Your task to perform on an android device: Look up the best rated pressure washer on Home Depot. Image 0: 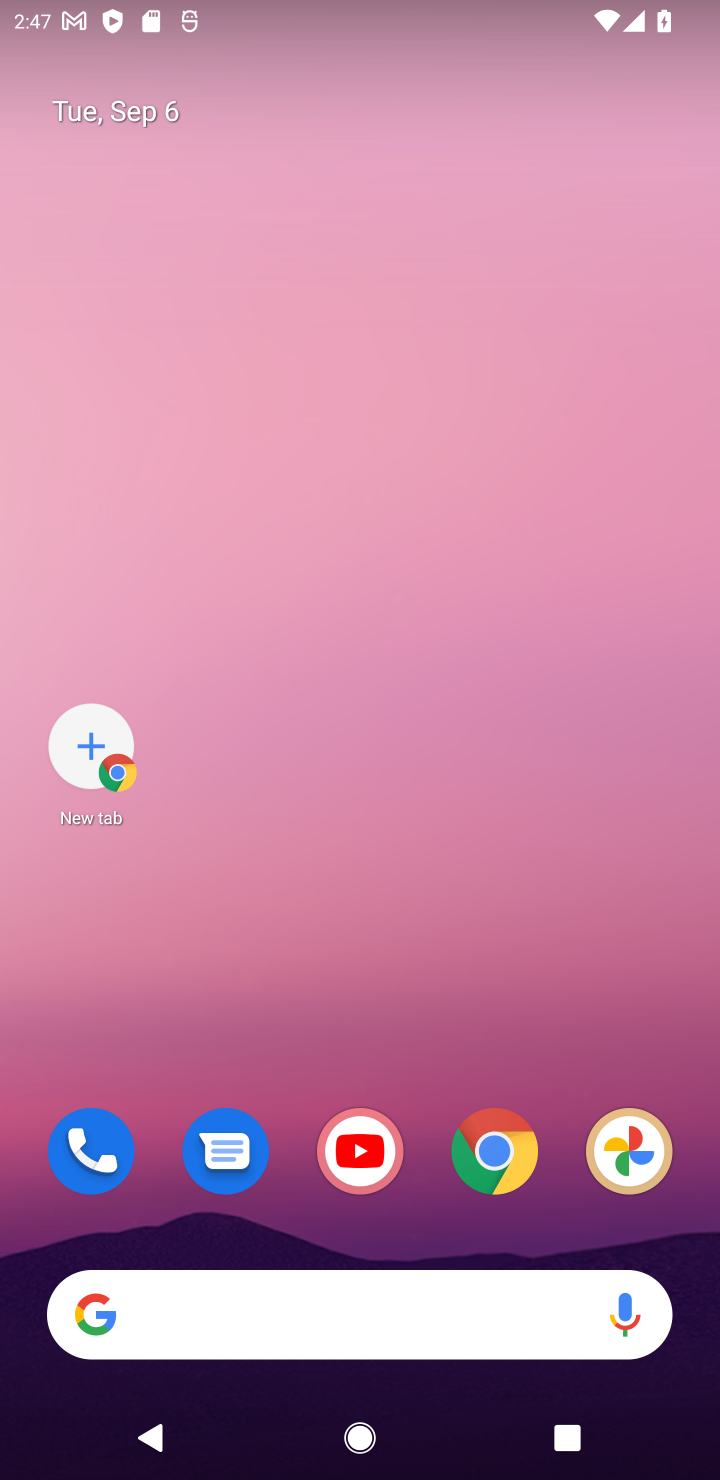
Step 0: click (499, 1167)
Your task to perform on an android device: Look up the best rated pressure washer on Home Depot. Image 1: 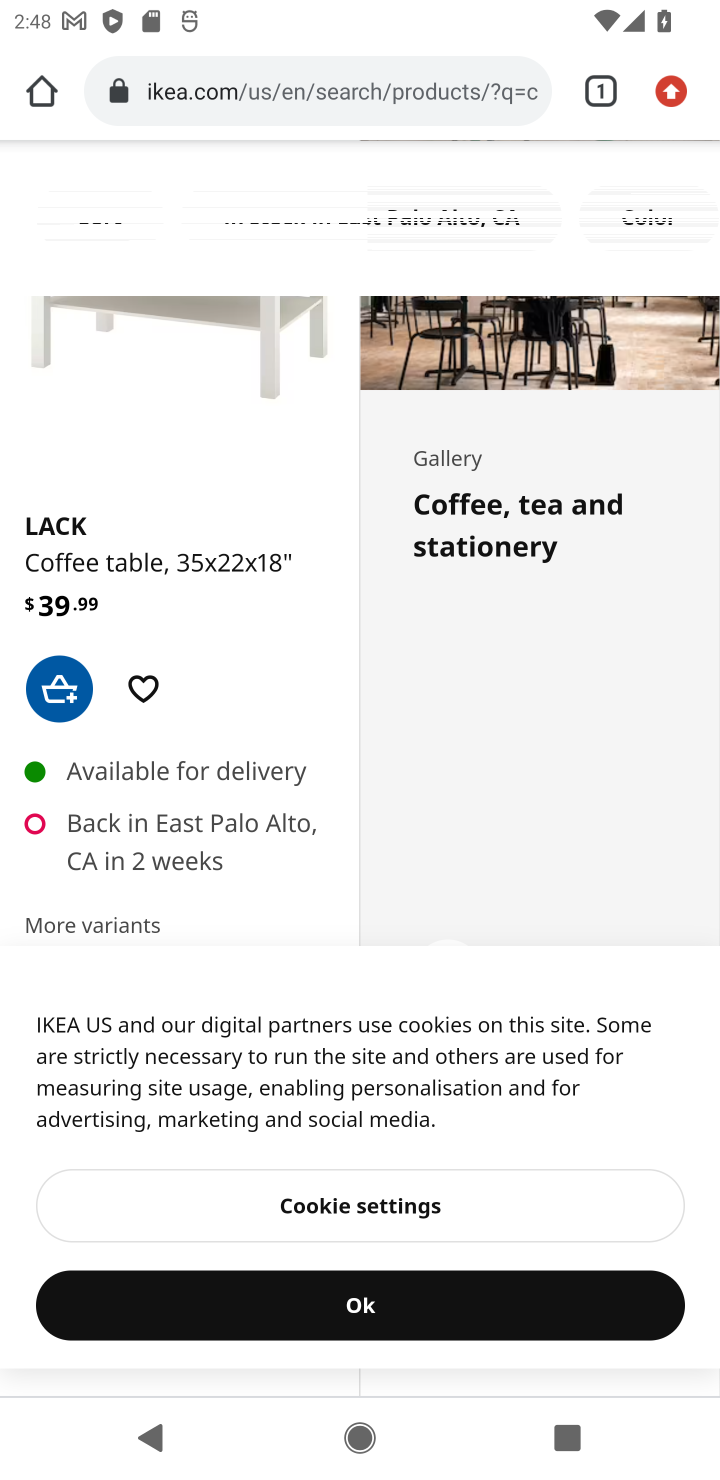
Step 1: click (205, 82)
Your task to perform on an android device: Look up the best rated pressure washer on Home Depot. Image 2: 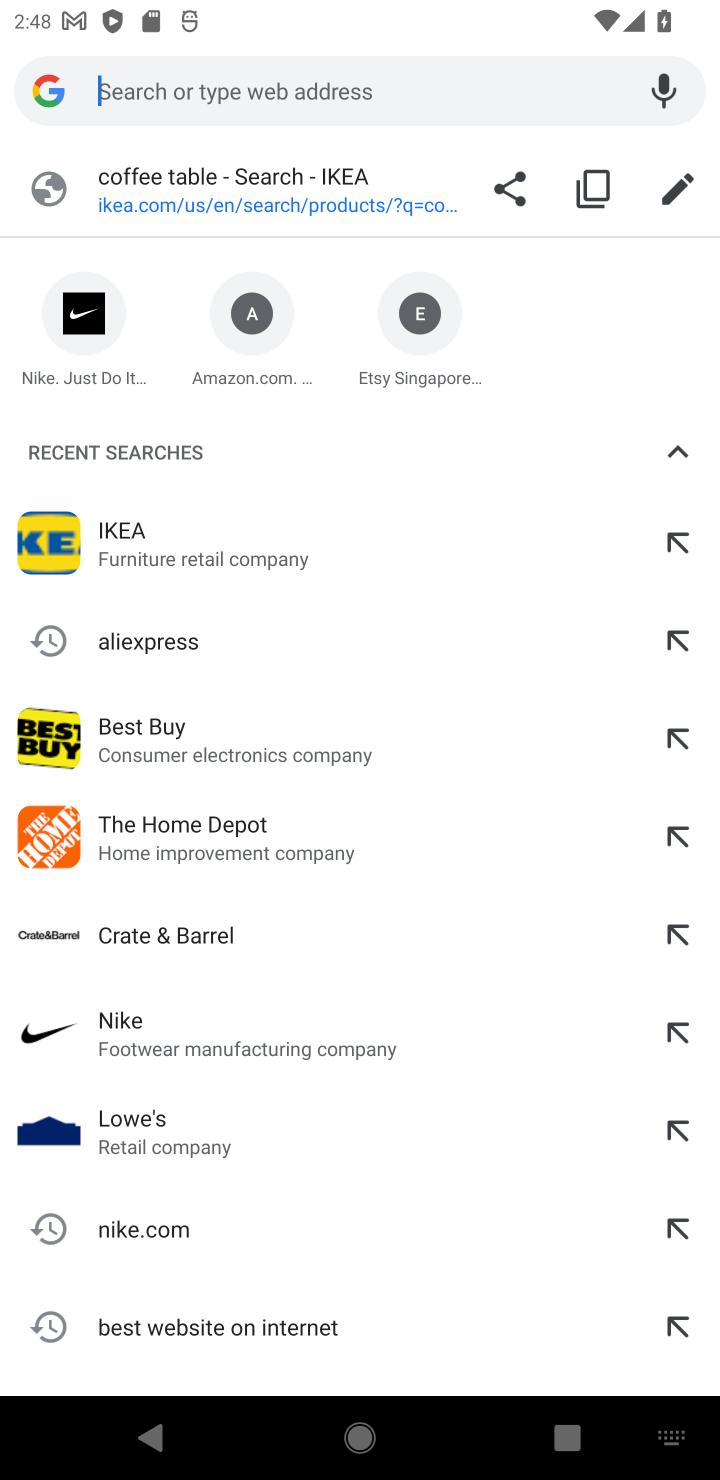
Step 2: type "home depot"
Your task to perform on an android device: Look up the best rated pressure washer on Home Depot. Image 3: 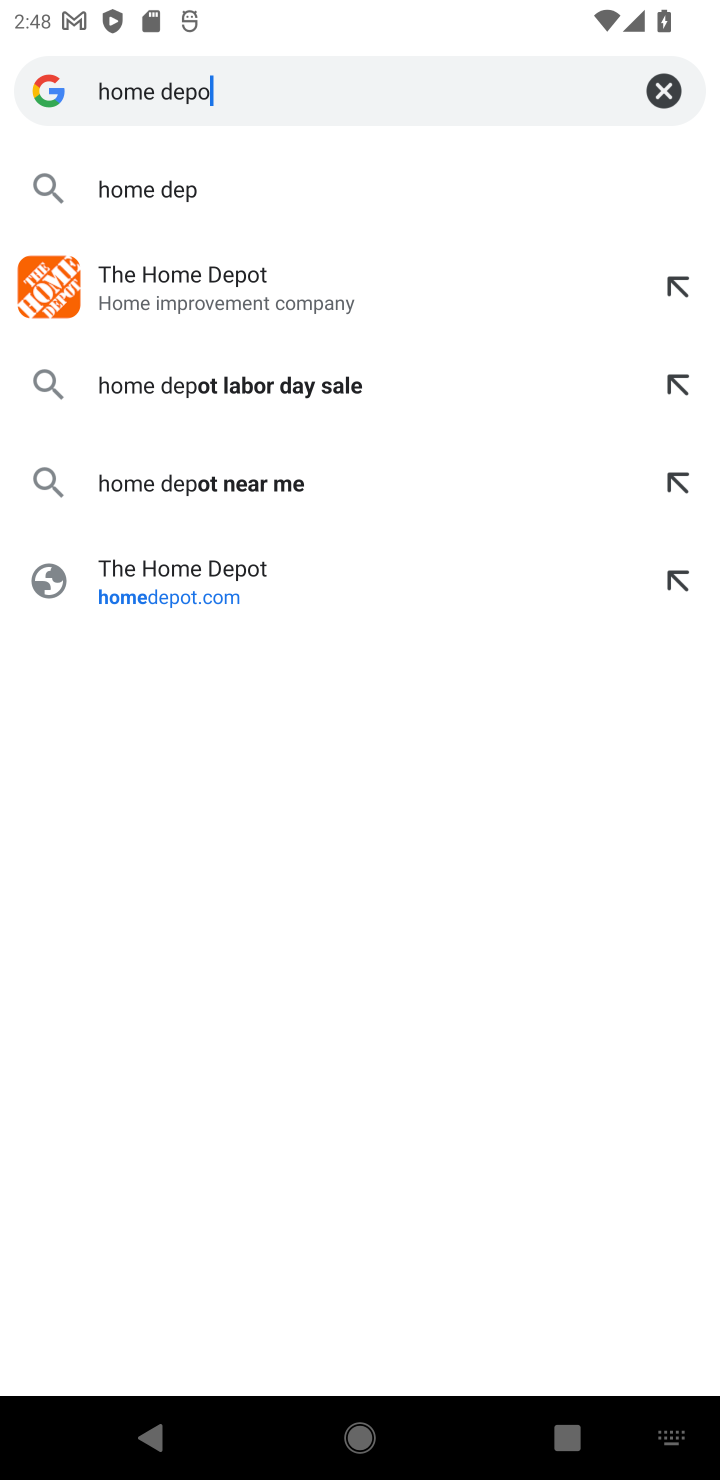
Step 3: type ""
Your task to perform on an android device: Look up the best rated pressure washer on Home Depot. Image 4: 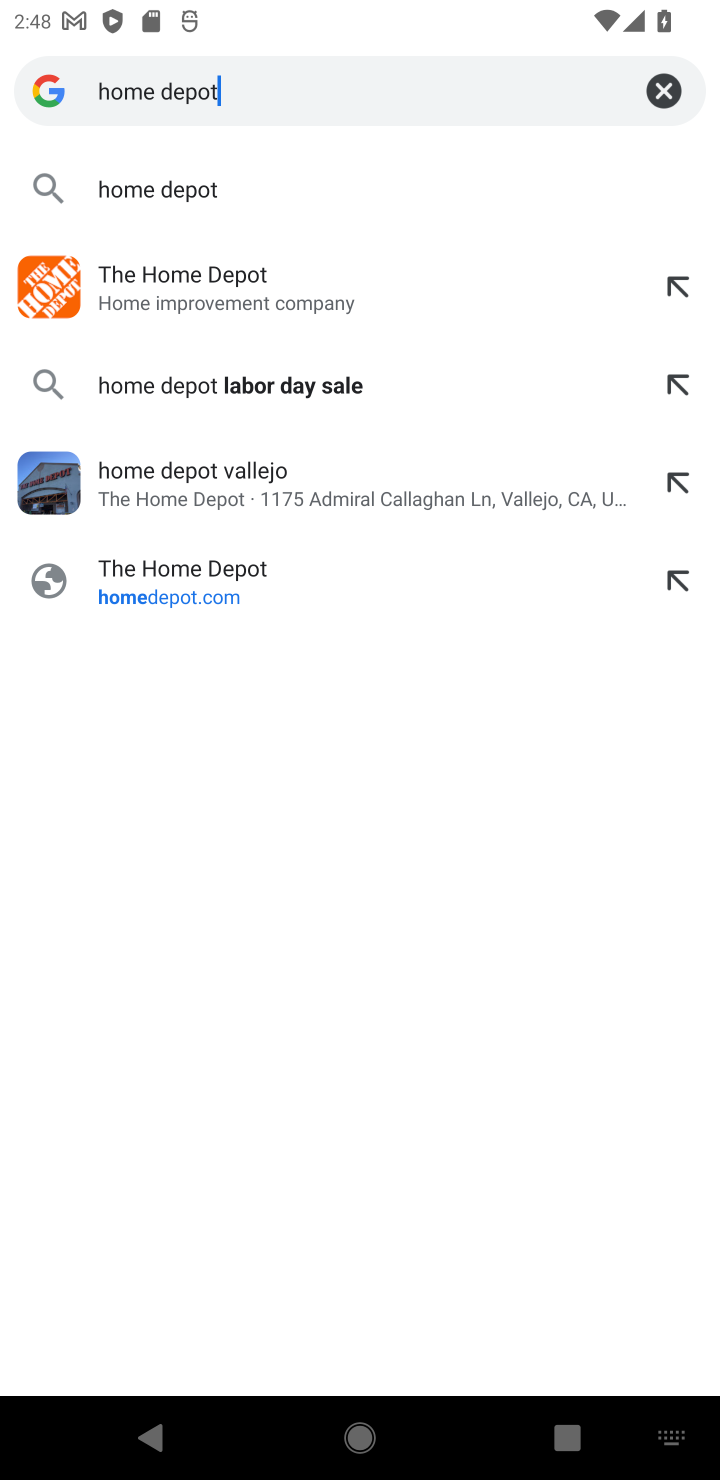
Step 4: click (138, 305)
Your task to perform on an android device: Look up the best rated pressure washer on Home Depot. Image 5: 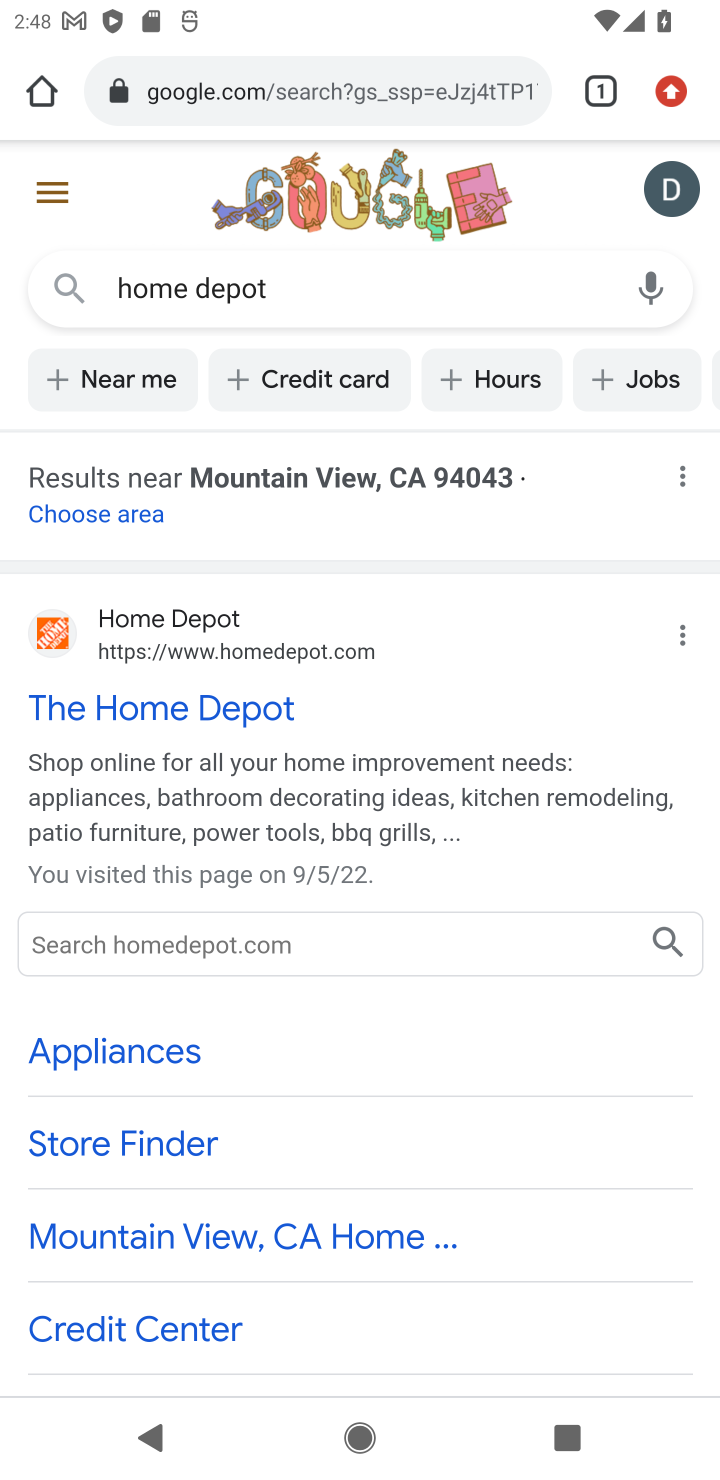
Step 5: click (73, 711)
Your task to perform on an android device: Look up the best rated pressure washer on Home Depot. Image 6: 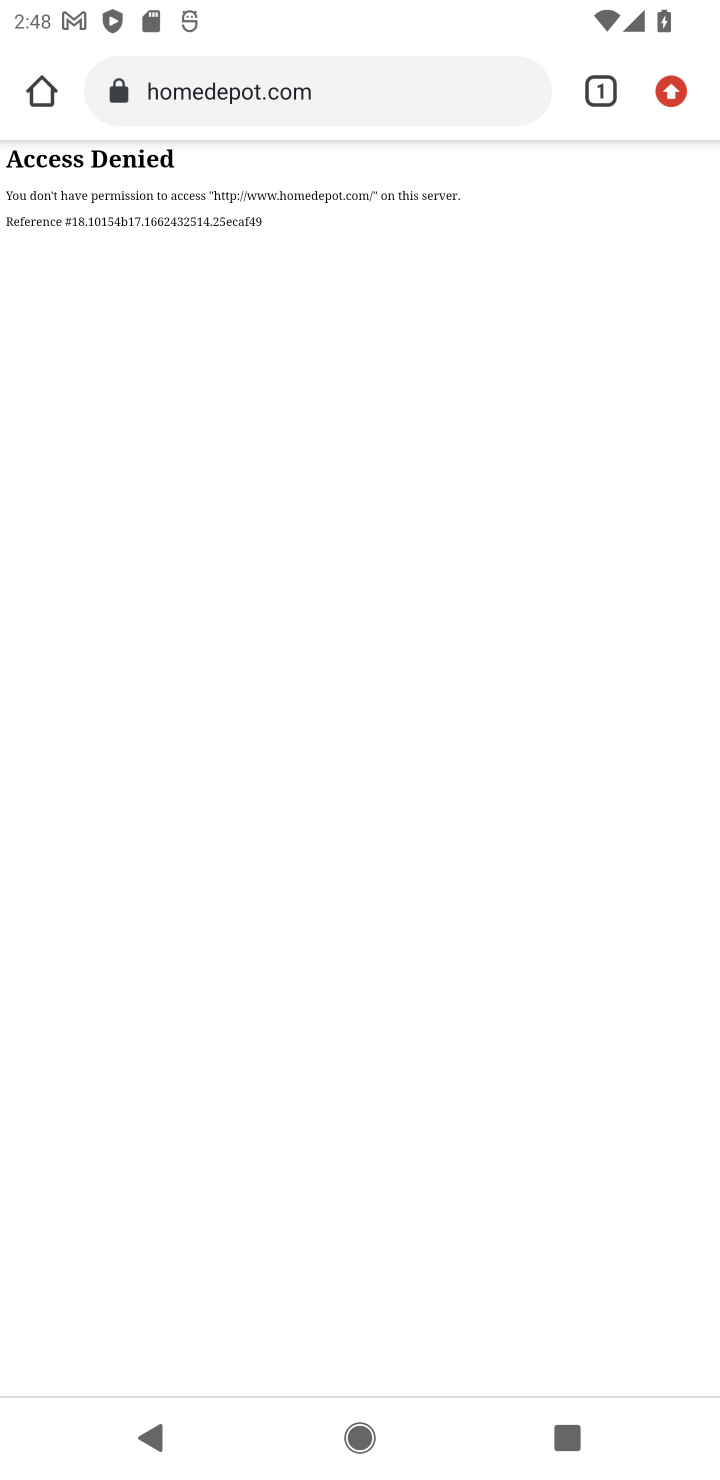
Step 6: task complete